Your task to perform on an android device: find photos in the google photos app Image 0: 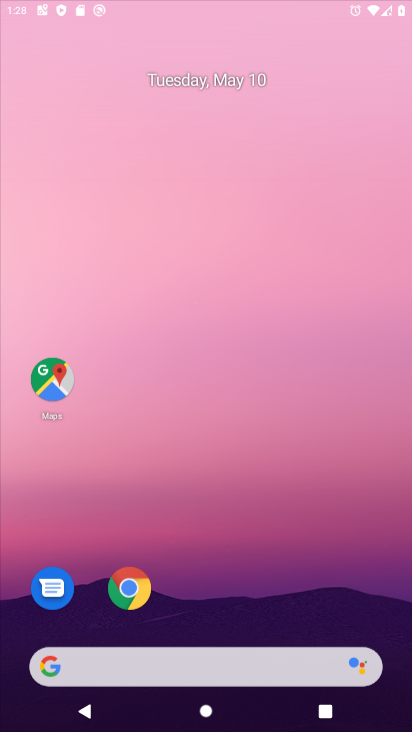
Step 0: drag from (280, 507) to (323, 135)
Your task to perform on an android device: find photos in the google photos app Image 1: 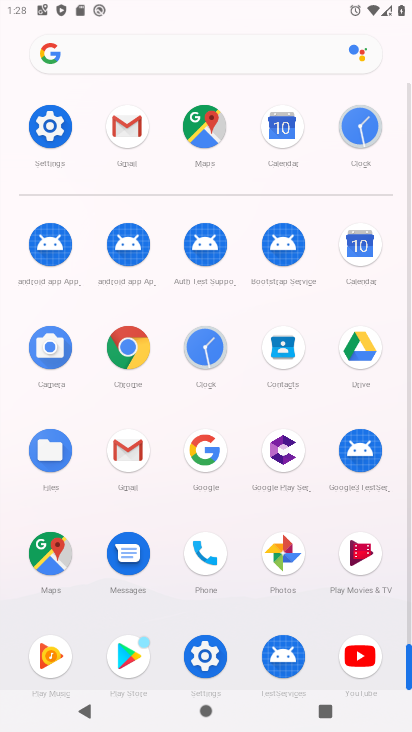
Step 1: click (285, 555)
Your task to perform on an android device: find photos in the google photos app Image 2: 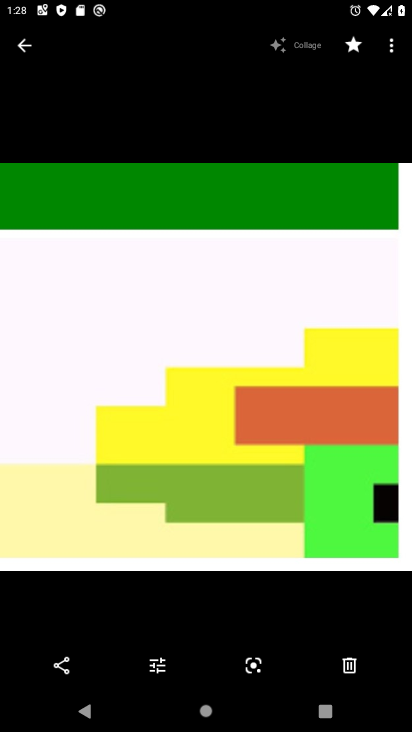
Step 2: task complete